Your task to perform on an android device: What's on my calendar tomorrow? Image 0: 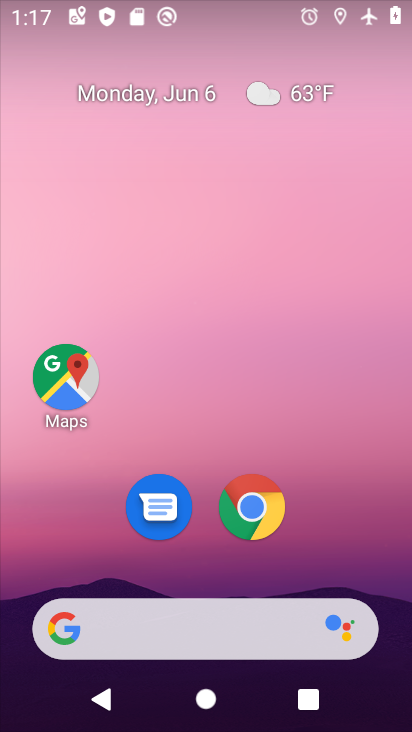
Step 0: drag from (237, 421) to (246, 1)
Your task to perform on an android device: What's on my calendar tomorrow? Image 1: 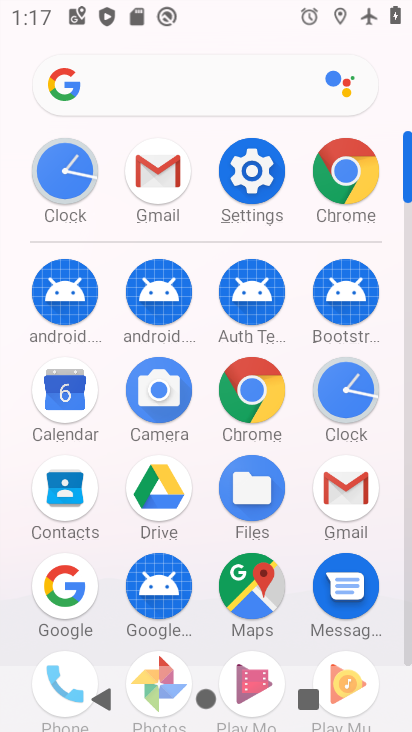
Step 1: click (73, 404)
Your task to perform on an android device: What's on my calendar tomorrow? Image 2: 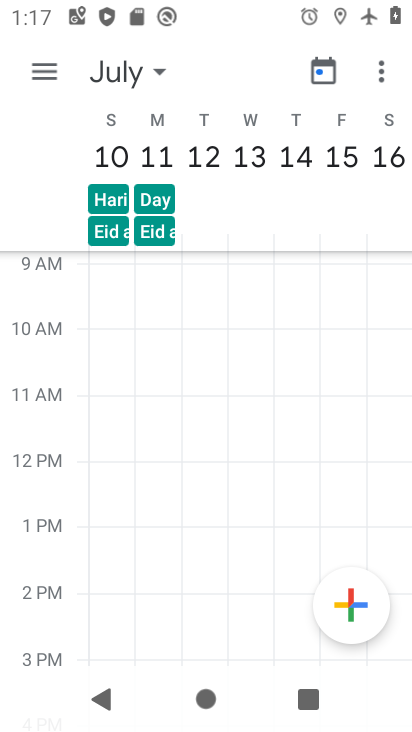
Step 2: drag from (126, 377) to (410, 462)
Your task to perform on an android device: What's on my calendar tomorrow? Image 3: 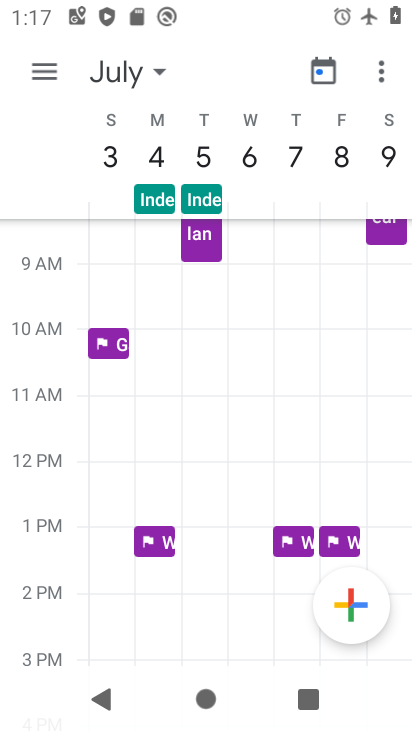
Step 3: drag from (117, 430) to (404, 507)
Your task to perform on an android device: What's on my calendar tomorrow? Image 4: 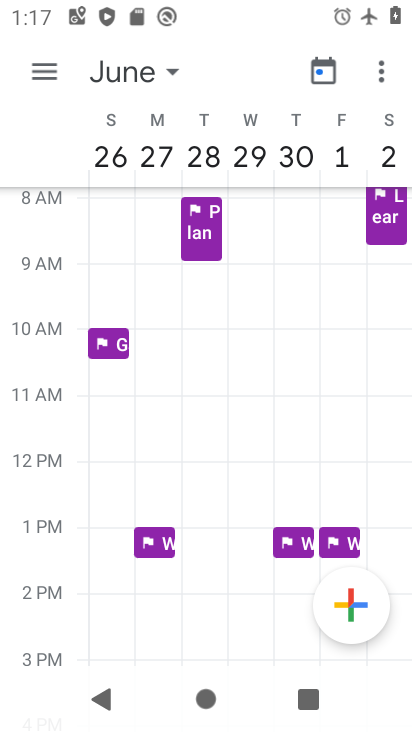
Step 4: drag from (120, 439) to (393, 455)
Your task to perform on an android device: What's on my calendar tomorrow? Image 5: 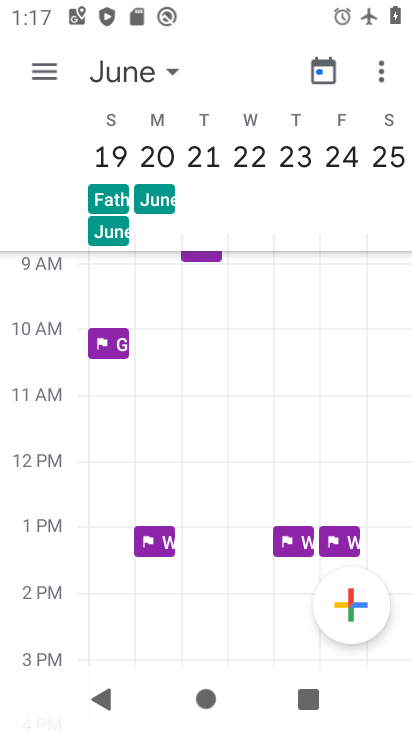
Step 5: drag from (127, 439) to (410, 434)
Your task to perform on an android device: What's on my calendar tomorrow? Image 6: 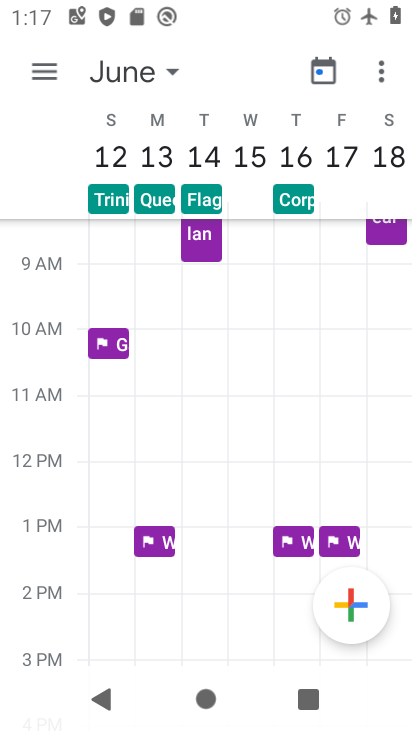
Step 6: drag from (107, 431) to (411, 442)
Your task to perform on an android device: What's on my calendar tomorrow? Image 7: 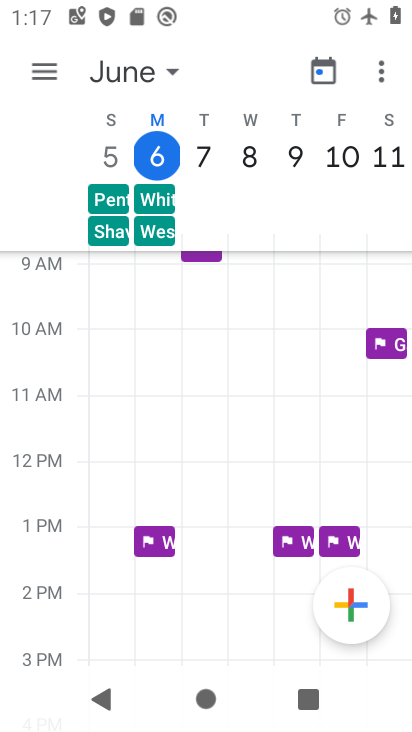
Step 7: click (160, 153)
Your task to perform on an android device: What's on my calendar tomorrow? Image 8: 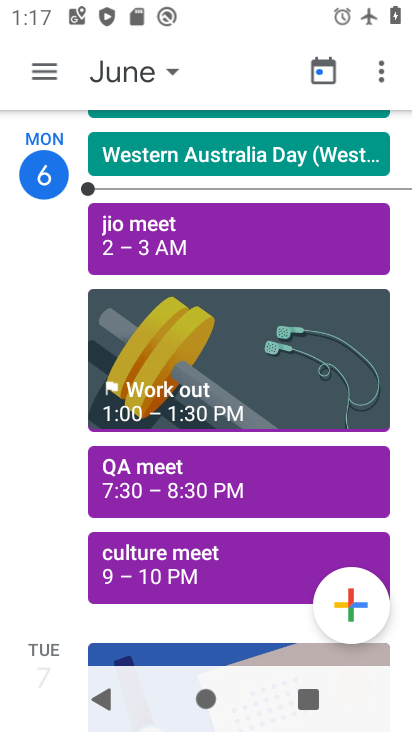
Step 8: task complete